Your task to perform on an android device: turn on data saver in the chrome app Image 0: 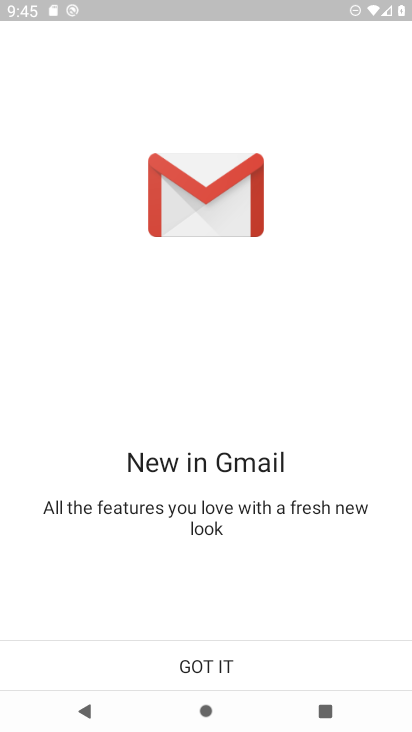
Step 0: click (224, 647)
Your task to perform on an android device: turn on data saver in the chrome app Image 1: 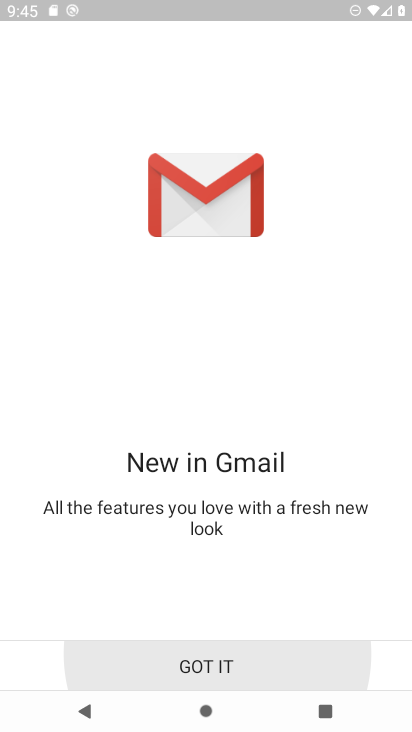
Step 1: click (221, 652)
Your task to perform on an android device: turn on data saver in the chrome app Image 2: 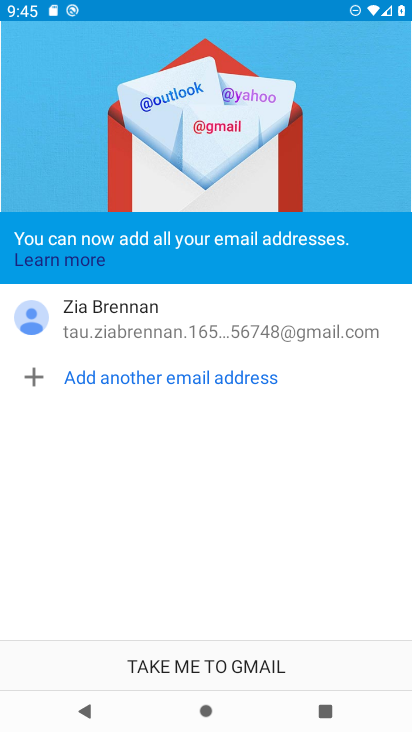
Step 2: click (234, 673)
Your task to perform on an android device: turn on data saver in the chrome app Image 3: 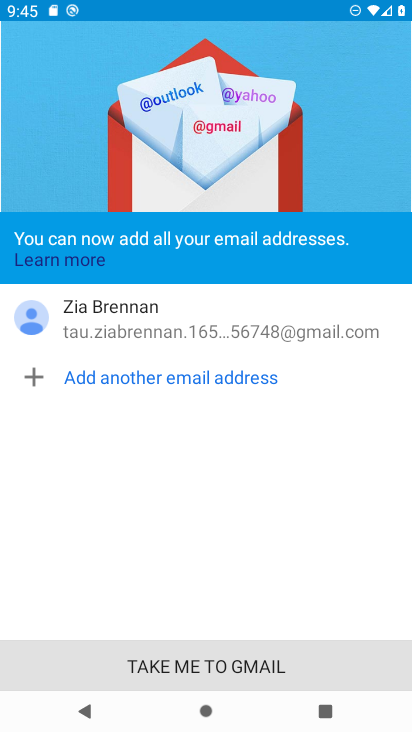
Step 3: click (234, 671)
Your task to perform on an android device: turn on data saver in the chrome app Image 4: 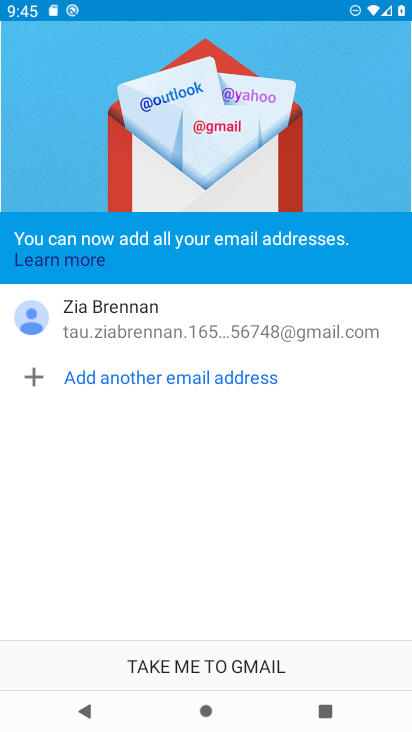
Step 4: click (234, 671)
Your task to perform on an android device: turn on data saver in the chrome app Image 5: 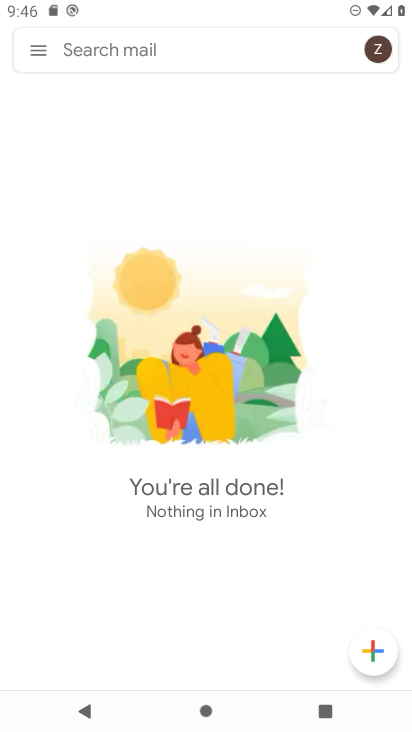
Step 5: press back button
Your task to perform on an android device: turn on data saver in the chrome app Image 6: 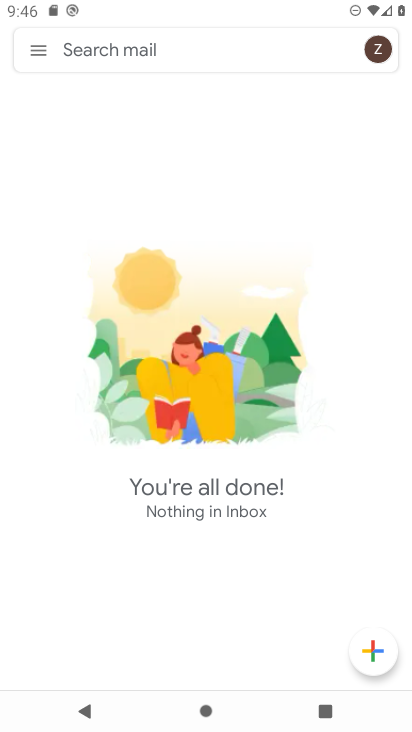
Step 6: press back button
Your task to perform on an android device: turn on data saver in the chrome app Image 7: 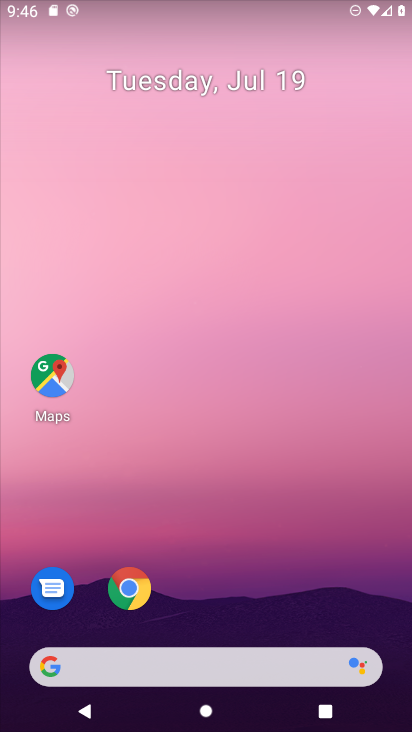
Step 7: drag from (252, 503) to (222, 296)
Your task to perform on an android device: turn on data saver in the chrome app Image 8: 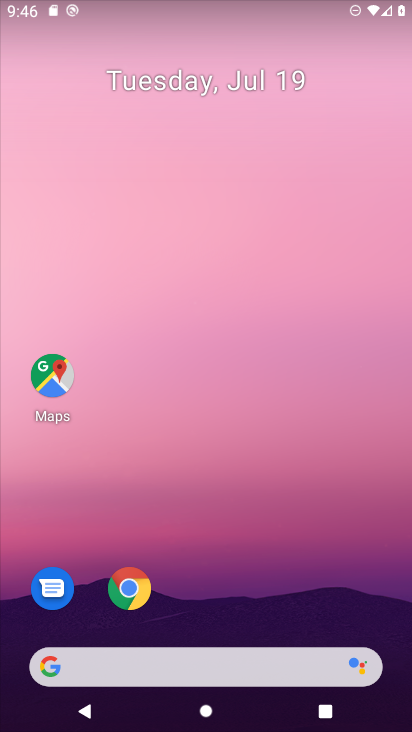
Step 8: drag from (224, 711) to (210, 187)
Your task to perform on an android device: turn on data saver in the chrome app Image 9: 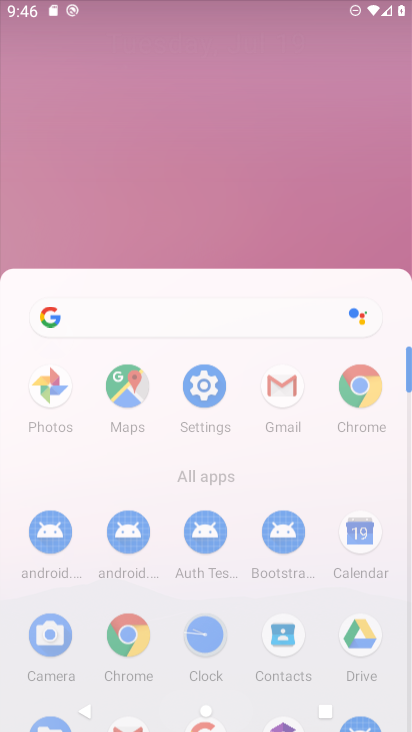
Step 9: drag from (233, 427) to (213, 179)
Your task to perform on an android device: turn on data saver in the chrome app Image 10: 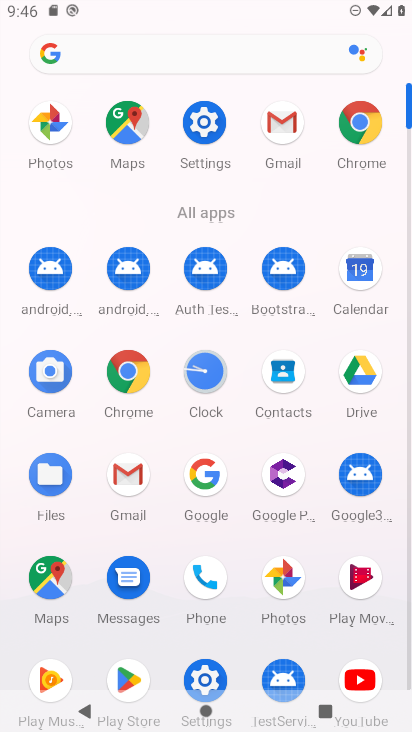
Step 10: click (363, 122)
Your task to perform on an android device: turn on data saver in the chrome app Image 11: 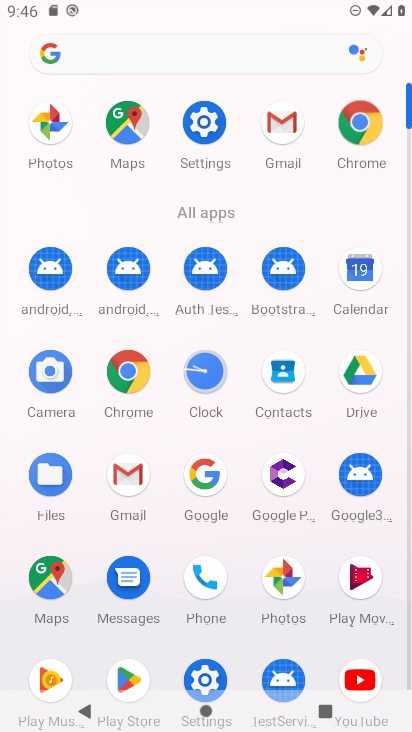
Step 11: click (361, 123)
Your task to perform on an android device: turn on data saver in the chrome app Image 12: 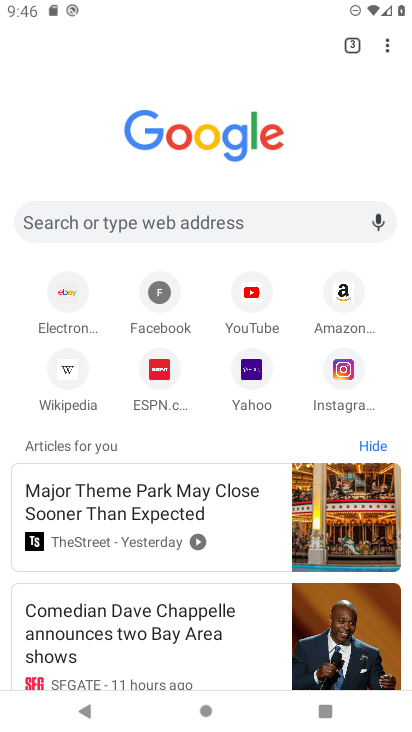
Step 12: drag from (379, 49) to (220, 380)
Your task to perform on an android device: turn on data saver in the chrome app Image 13: 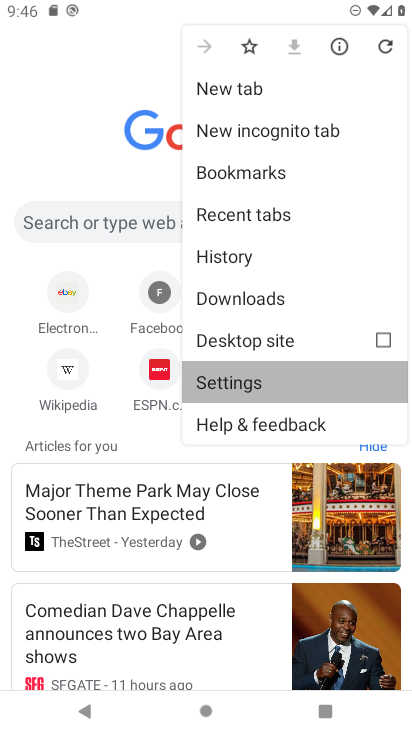
Step 13: click (219, 378)
Your task to perform on an android device: turn on data saver in the chrome app Image 14: 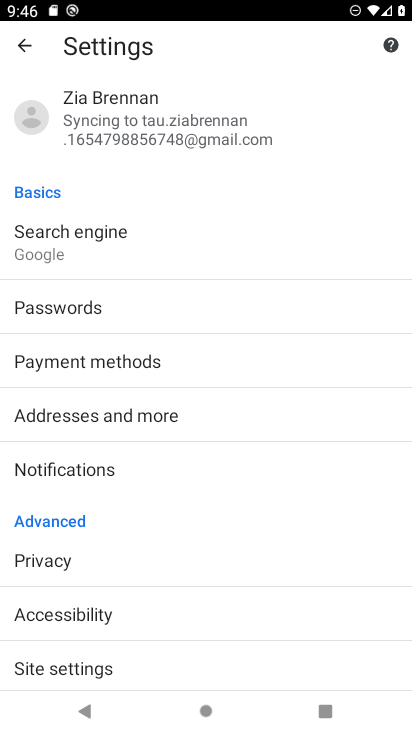
Step 14: drag from (68, 598) to (104, 356)
Your task to perform on an android device: turn on data saver in the chrome app Image 15: 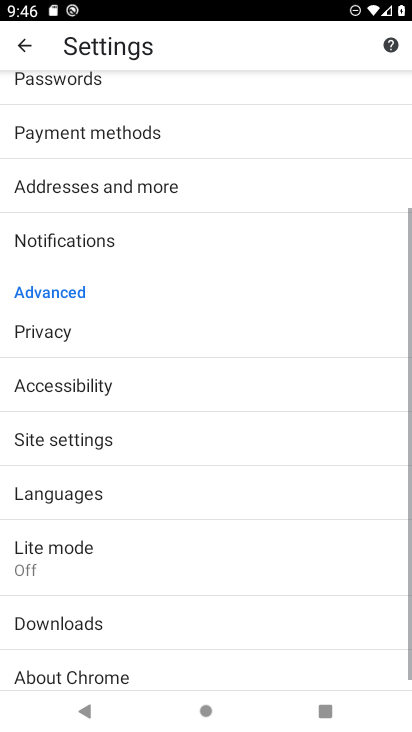
Step 15: drag from (110, 583) to (115, 459)
Your task to perform on an android device: turn on data saver in the chrome app Image 16: 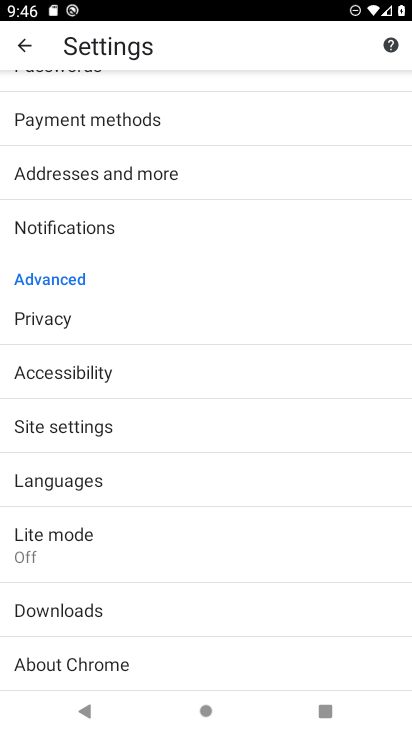
Step 16: click (44, 529)
Your task to perform on an android device: turn on data saver in the chrome app Image 17: 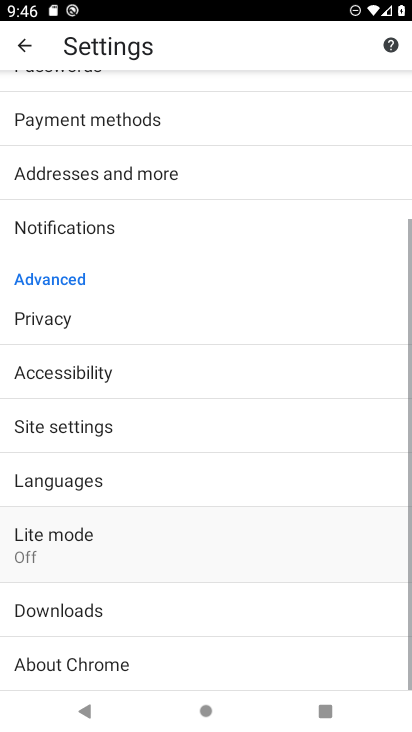
Step 17: click (44, 529)
Your task to perform on an android device: turn on data saver in the chrome app Image 18: 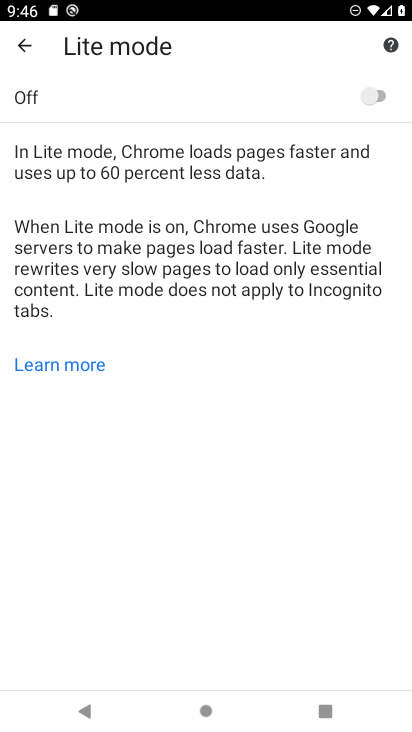
Step 18: click (375, 100)
Your task to perform on an android device: turn on data saver in the chrome app Image 19: 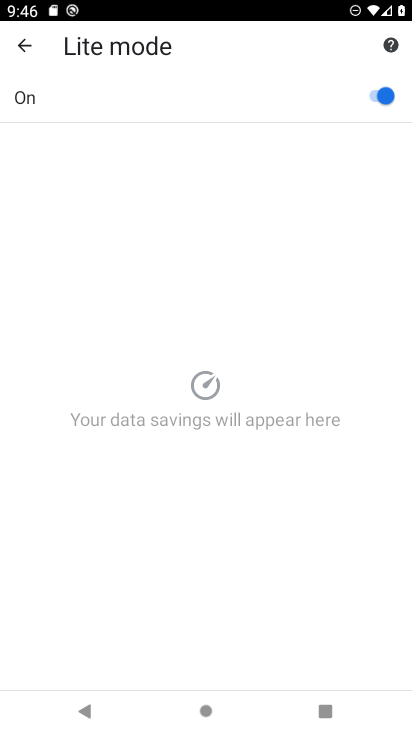
Step 19: task complete